Your task to perform on an android device: Go to sound settings Image 0: 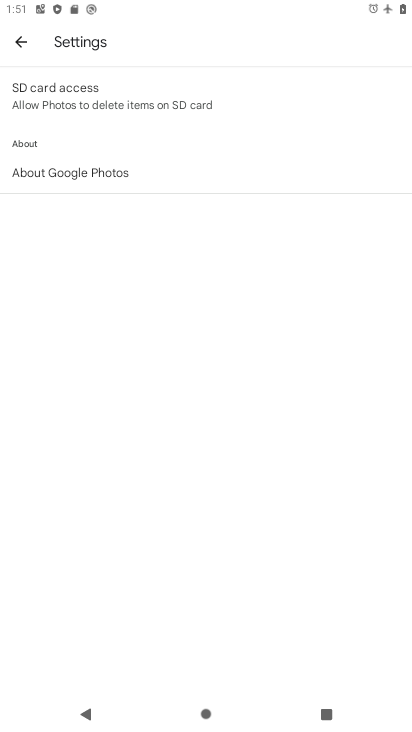
Step 0: press home button
Your task to perform on an android device: Go to sound settings Image 1: 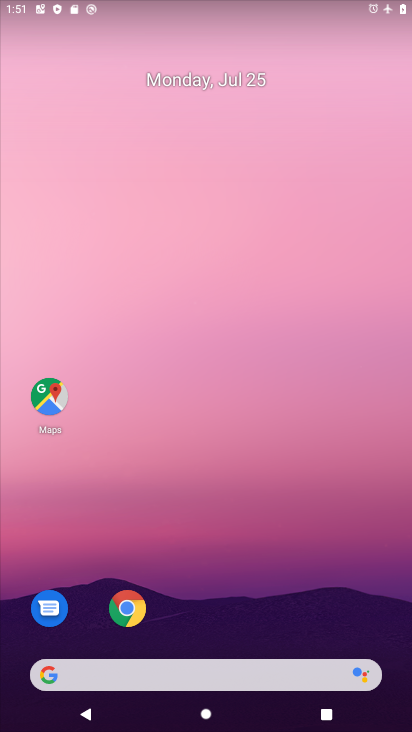
Step 1: drag from (333, 565) to (245, 0)
Your task to perform on an android device: Go to sound settings Image 2: 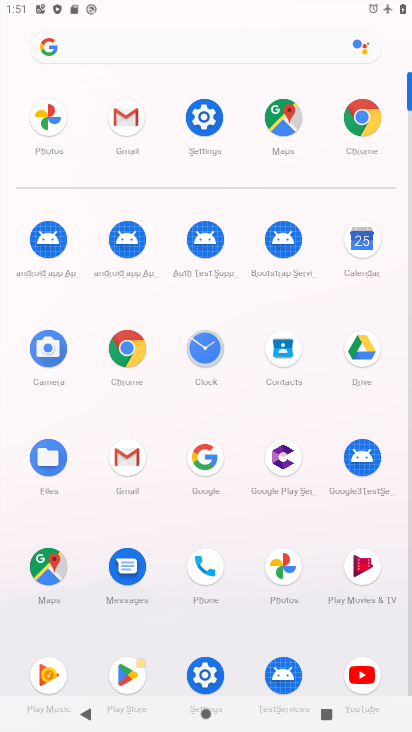
Step 2: click (204, 122)
Your task to perform on an android device: Go to sound settings Image 3: 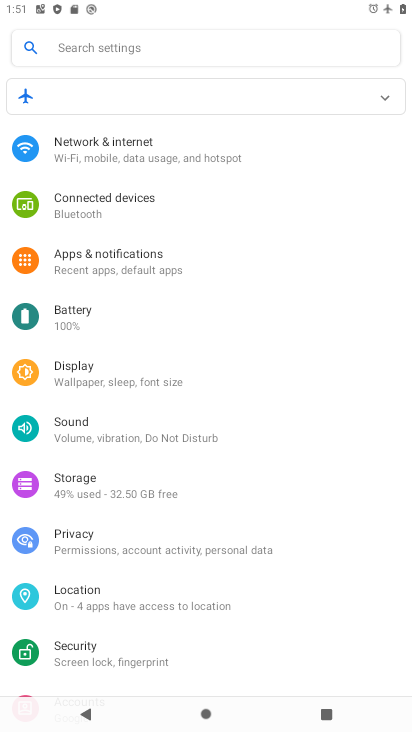
Step 3: click (107, 425)
Your task to perform on an android device: Go to sound settings Image 4: 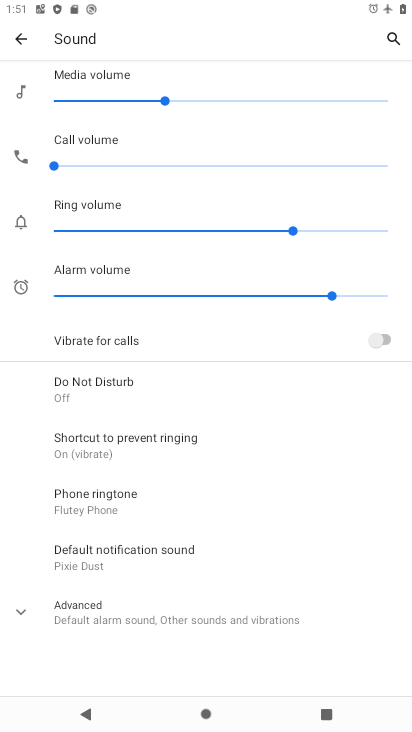
Step 4: task complete